Your task to perform on an android device: turn on translation in the chrome app Image 0: 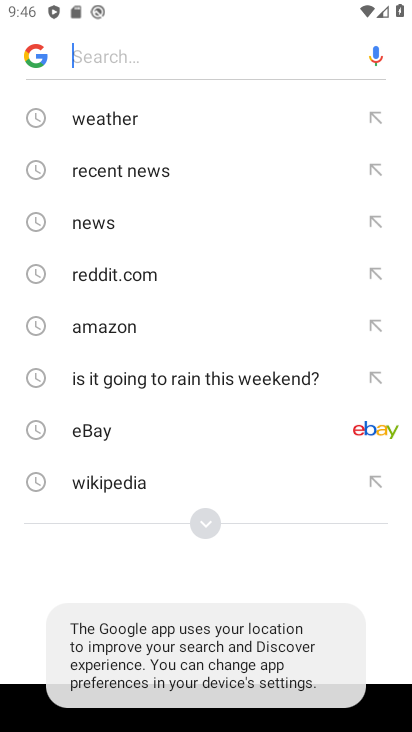
Step 0: press back button
Your task to perform on an android device: turn on translation in the chrome app Image 1: 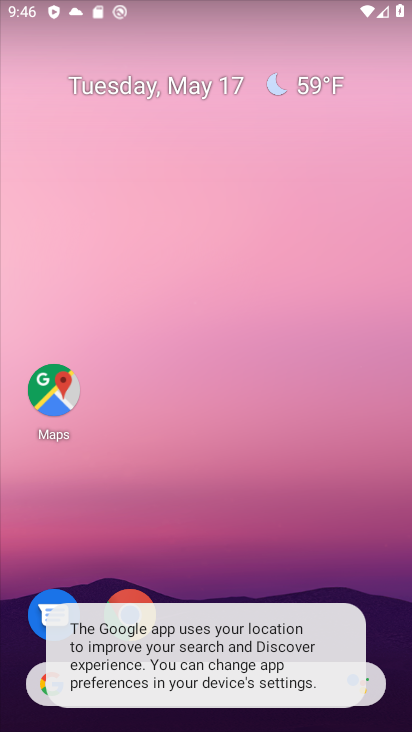
Step 1: drag from (227, 581) to (150, 213)
Your task to perform on an android device: turn on translation in the chrome app Image 2: 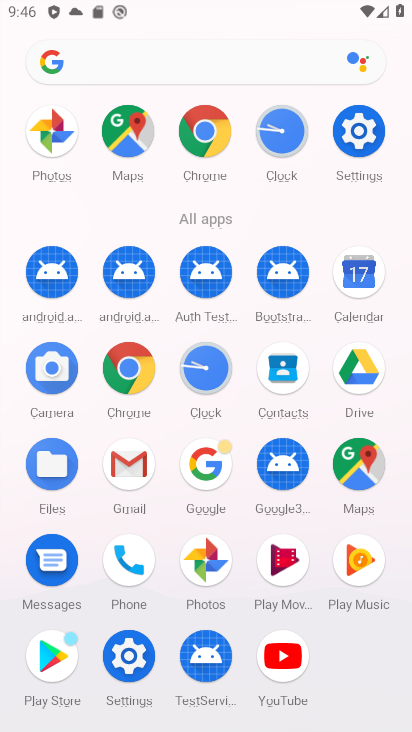
Step 2: click (193, 183)
Your task to perform on an android device: turn on translation in the chrome app Image 3: 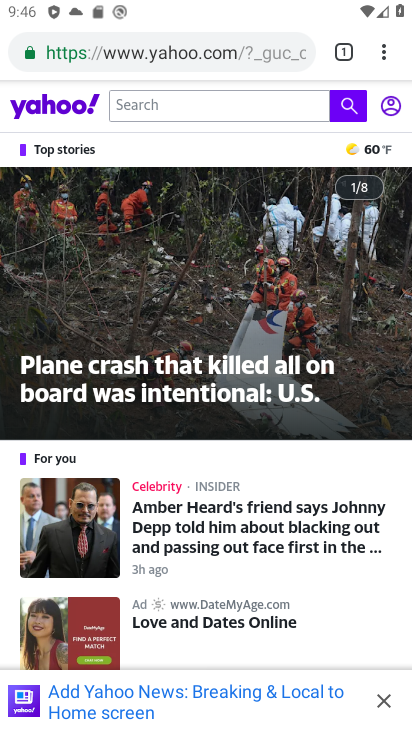
Step 3: click (384, 57)
Your task to perform on an android device: turn on translation in the chrome app Image 4: 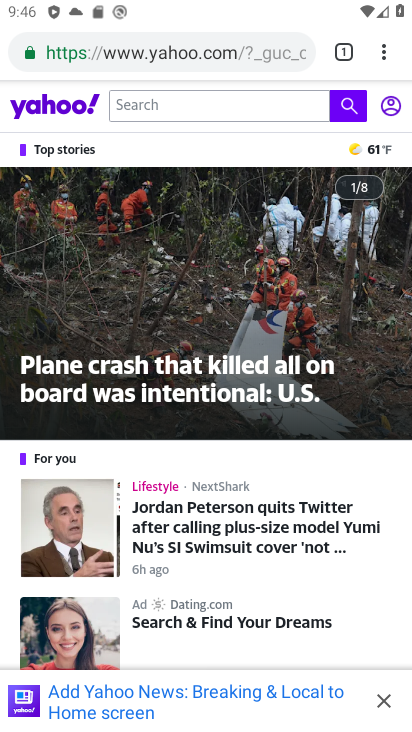
Step 4: click (388, 52)
Your task to perform on an android device: turn on translation in the chrome app Image 5: 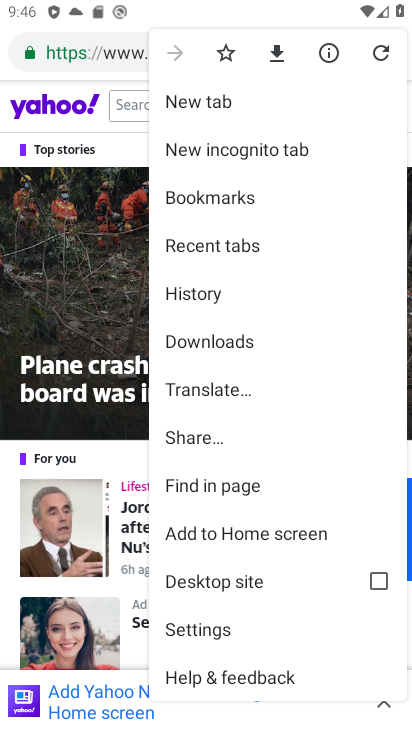
Step 5: click (245, 622)
Your task to perform on an android device: turn on translation in the chrome app Image 6: 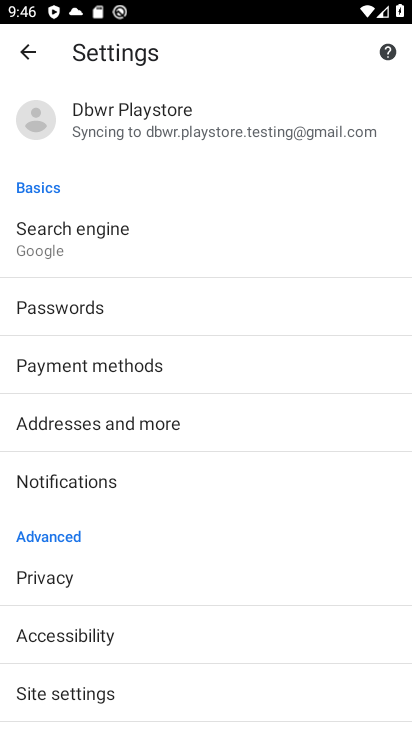
Step 6: drag from (150, 686) to (167, 427)
Your task to perform on an android device: turn on translation in the chrome app Image 7: 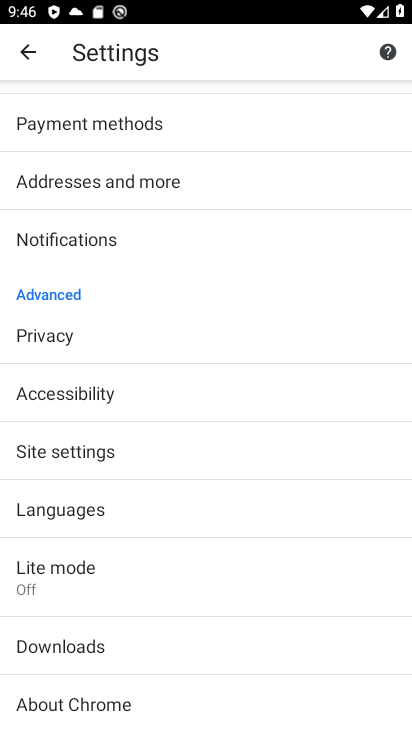
Step 7: click (78, 504)
Your task to perform on an android device: turn on translation in the chrome app Image 8: 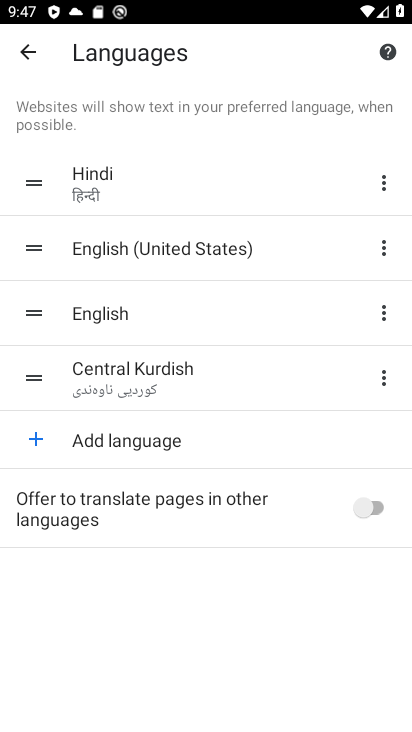
Step 8: click (382, 514)
Your task to perform on an android device: turn on translation in the chrome app Image 9: 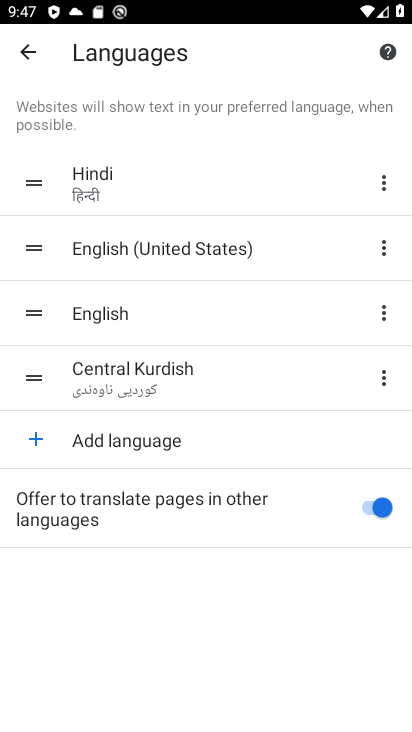
Step 9: task complete